Your task to perform on an android device: empty trash in the gmail app Image 0: 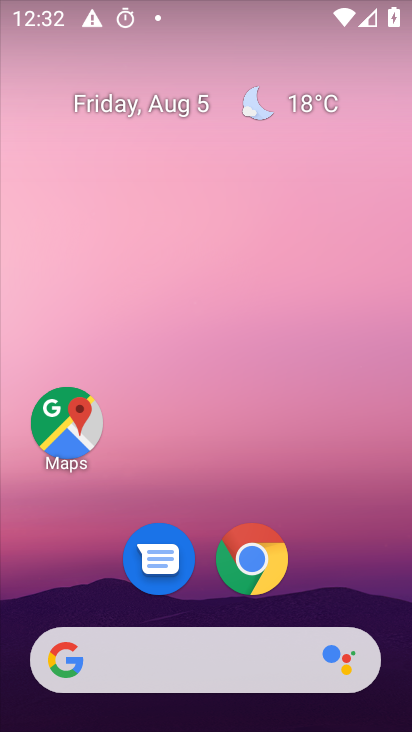
Step 0: drag from (50, 701) to (282, 287)
Your task to perform on an android device: empty trash in the gmail app Image 1: 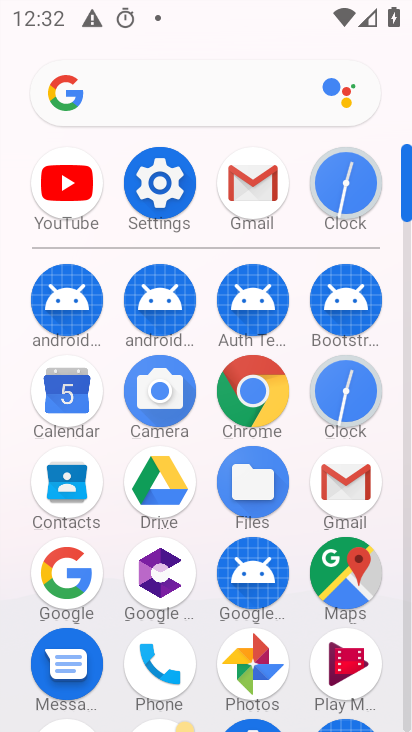
Step 1: click (366, 483)
Your task to perform on an android device: empty trash in the gmail app Image 2: 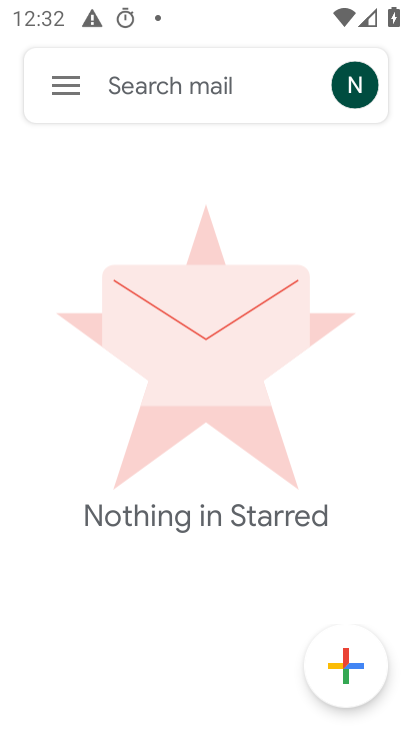
Step 2: click (61, 91)
Your task to perform on an android device: empty trash in the gmail app Image 3: 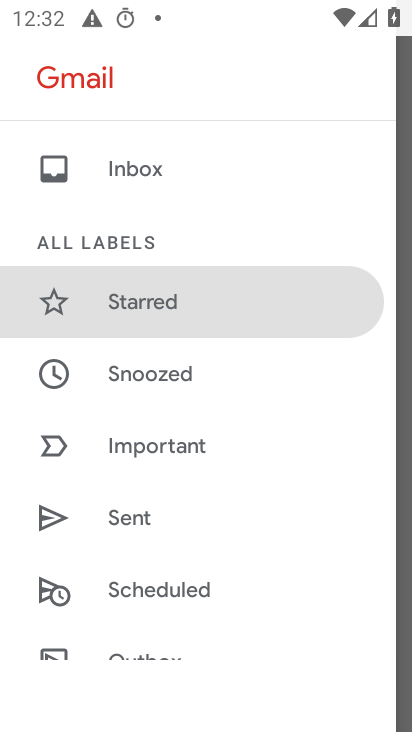
Step 3: drag from (337, 487) to (322, 321)
Your task to perform on an android device: empty trash in the gmail app Image 4: 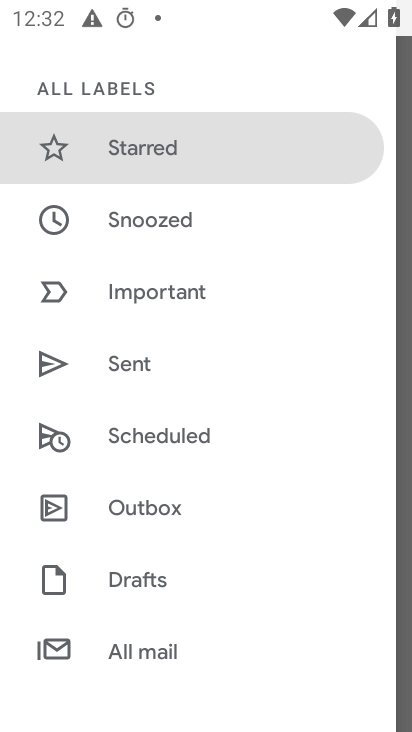
Step 4: drag from (321, 569) to (318, 432)
Your task to perform on an android device: empty trash in the gmail app Image 5: 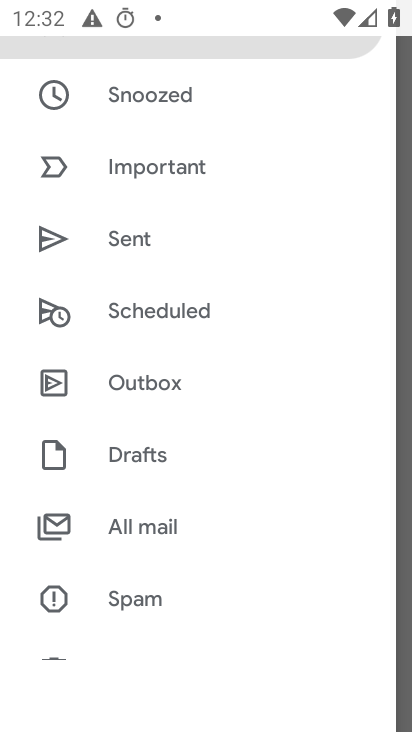
Step 5: drag from (347, 560) to (349, 239)
Your task to perform on an android device: empty trash in the gmail app Image 6: 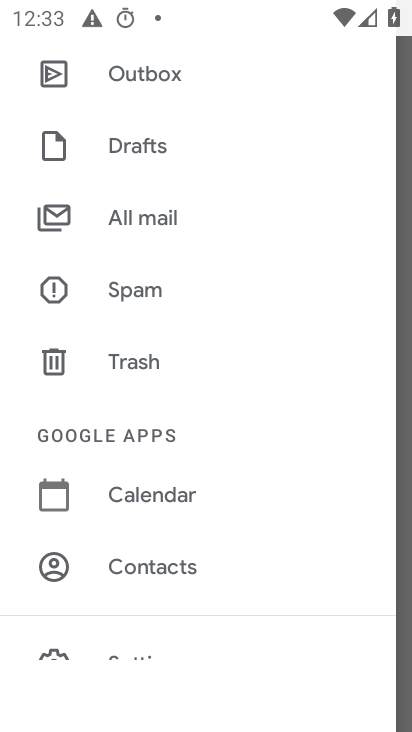
Step 6: click (134, 359)
Your task to perform on an android device: empty trash in the gmail app Image 7: 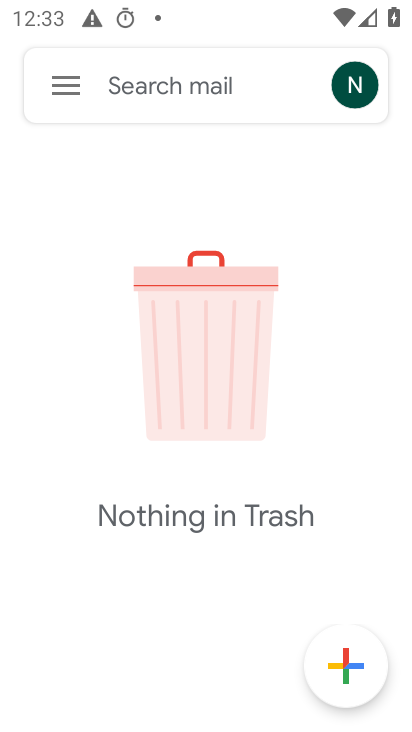
Step 7: task complete